Your task to perform on an android device: turn on bluetooth scan Image 0: 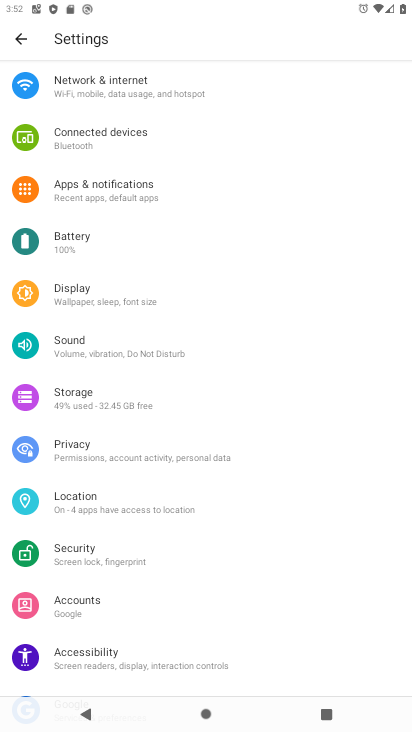
Step 0: press back button
Your task to perform on an android device: turn on bluetooth scan Image 1: 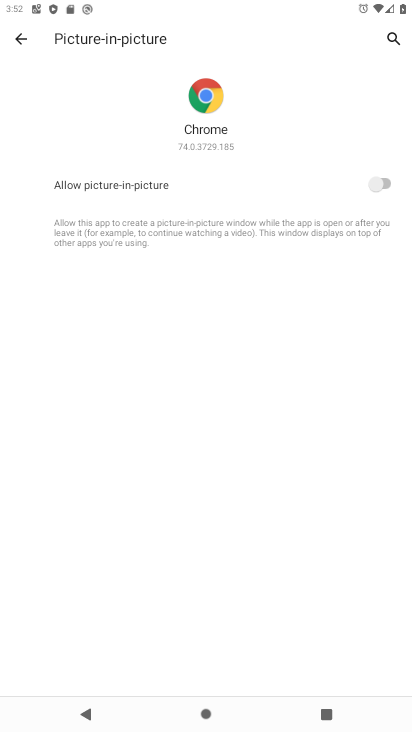
Step 1: press back button
Your task to perform on an android device: turn on bluetooth scan Image 2: 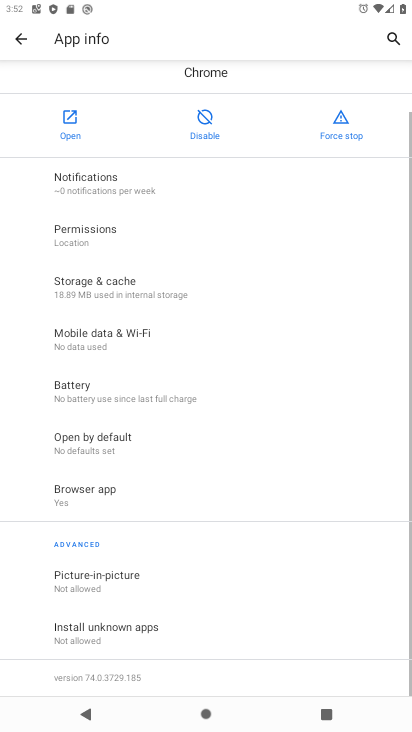
Step 2: press back button
Your task to perform on an android device: turn on bluetooth scan Image 3: 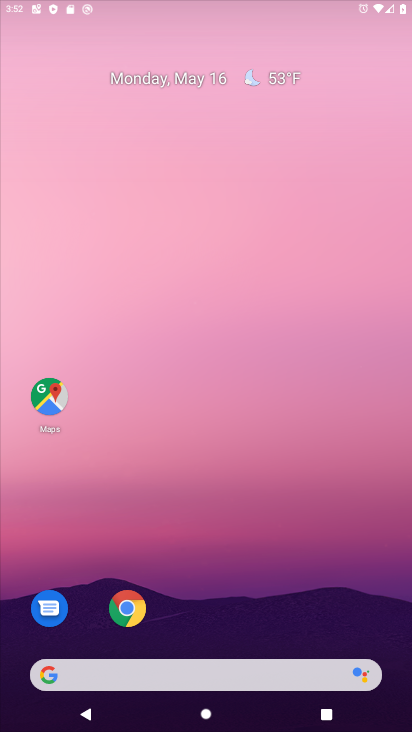
Step 3: press back button
Your task to perform on an android device: turn on bluetooth scan Image 4: 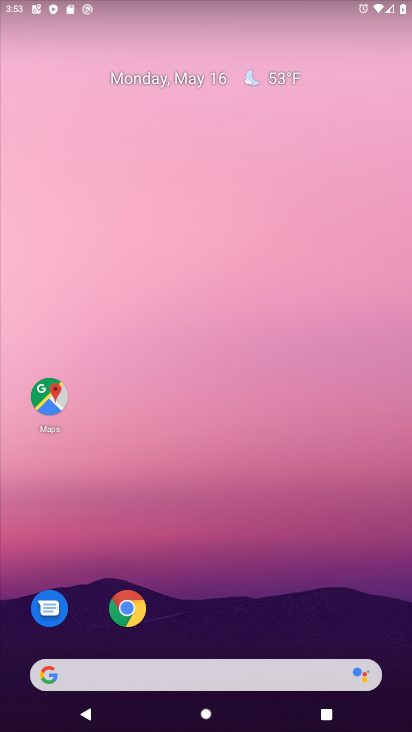
Step 4: drag from (281, 590) to (207, 18)
Your task to perform on an android device: turn on bluetooth scan Image 5: 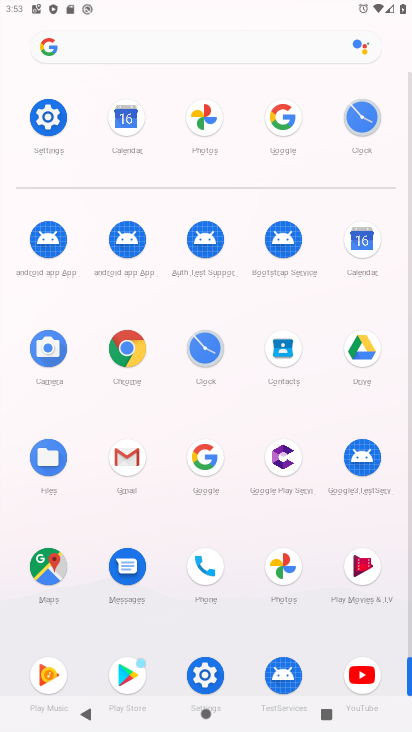
Step 5: click (205, 674)
Your task to perform on an android device: turn on bluetooth scan Image 6: 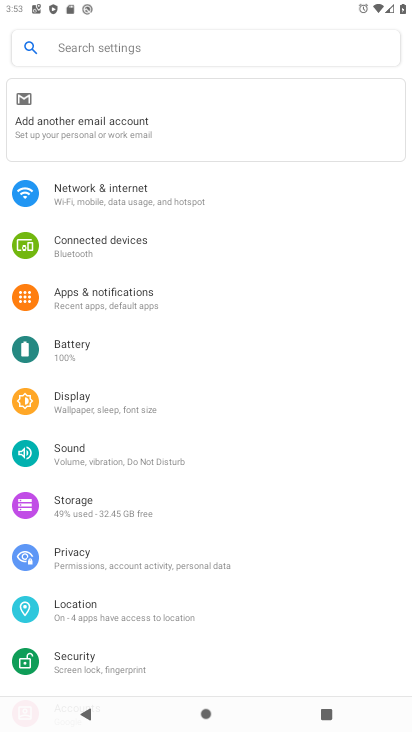
Step 6: drag from (92, 439) to (150, 354)
Your task to perform on an android device: turn on bluetooth scan Image 7: 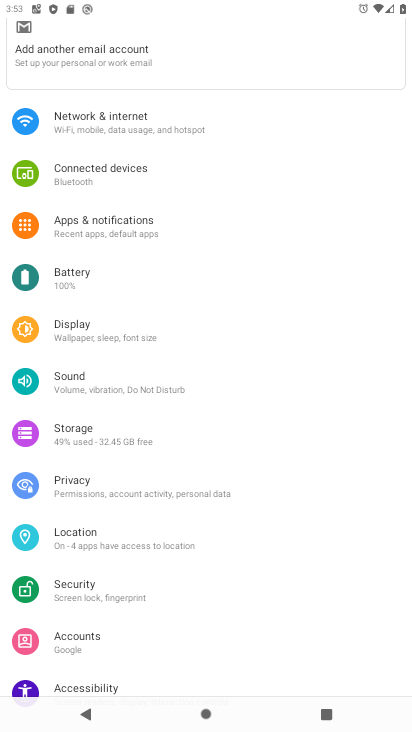
Step 7: click (88, 541)
Your task to perform on an android device: turn on bluetooth scan Image 8: 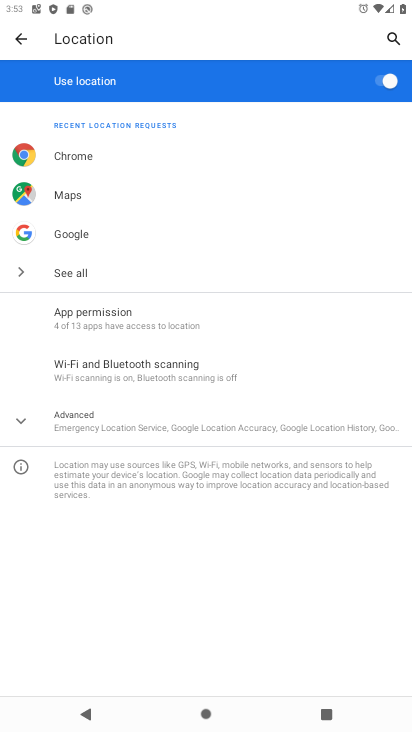
Step 8: click (143, 362)
Your task to perform on an android device: turn on bluetooth scan Image 9: 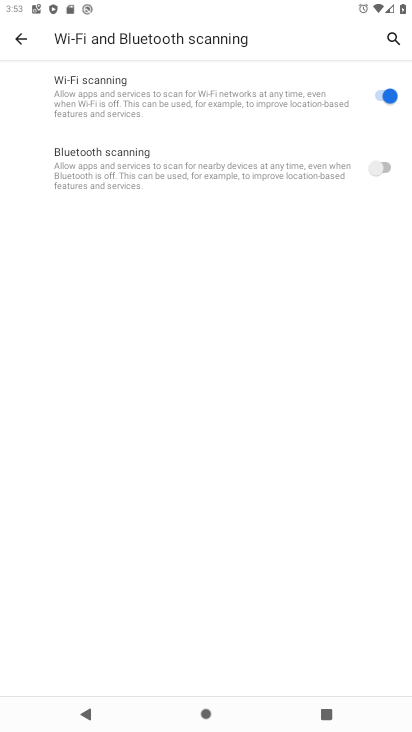
Step 9: click (382, 168)
Your task to perform on an android device: turn on bluetooth scan Image 10: 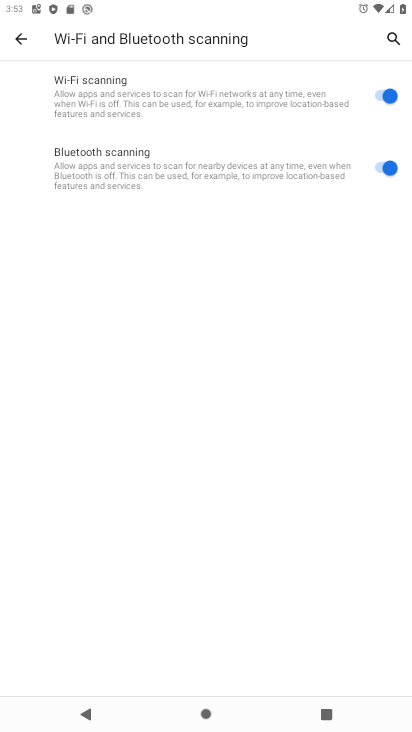
Step 10: task complete